Your task to perform on an android device: make emails show in primary in the gmail app Image 0: 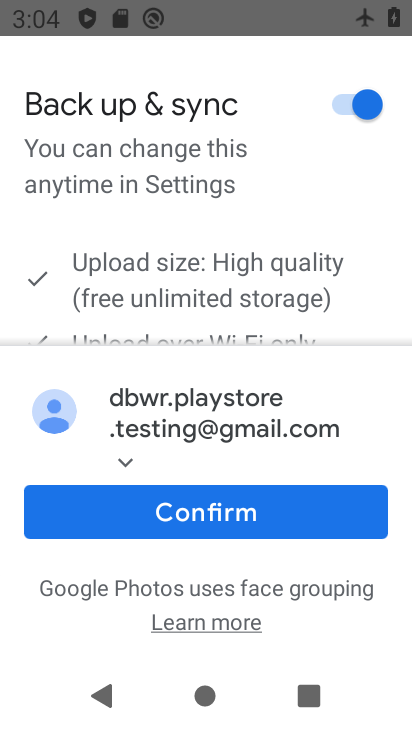
Step 0: press home button
Your task to perform on an android device: make emails show in primary in the gmail app Image 1: 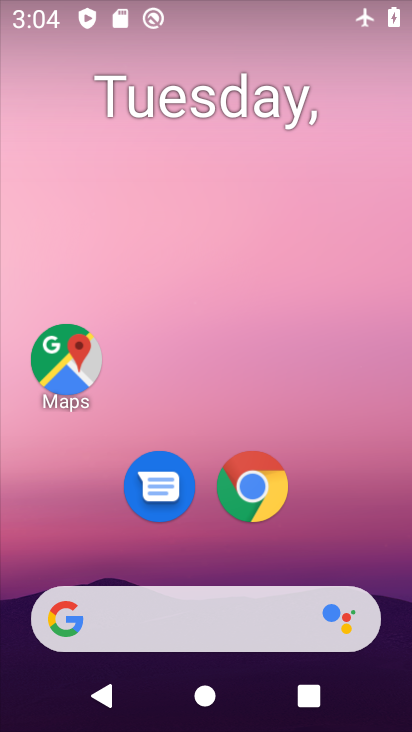
Step 1: drag from (217, 325) to (217, 123)
Your task to perform on an android device: make emails show in primary in the gmail app Image 2: 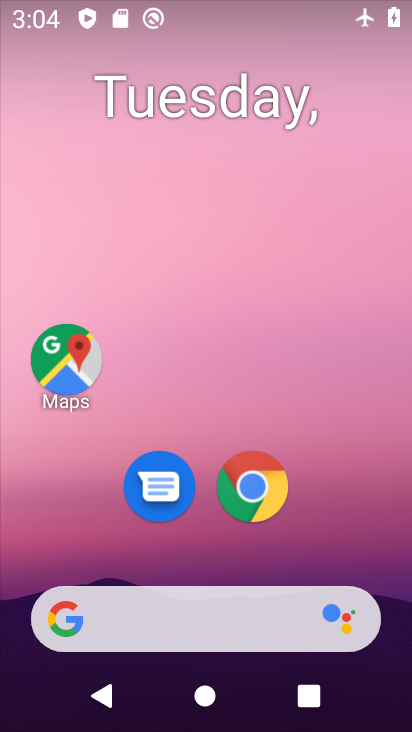
Step 2: drag from (229, 367) to (257, 48)
Your task to perform on an android device: make emails show in primary in the gmail app Image 3: 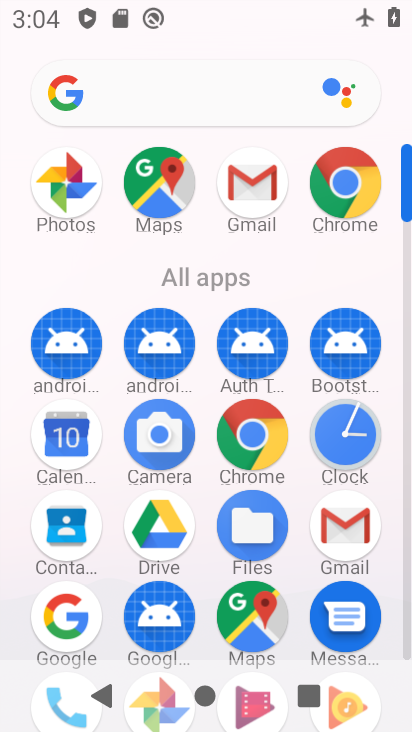
Step 3: click (244, 183)
Your task to perform on an android device: make emails show in primary in the gmail app Image 4: 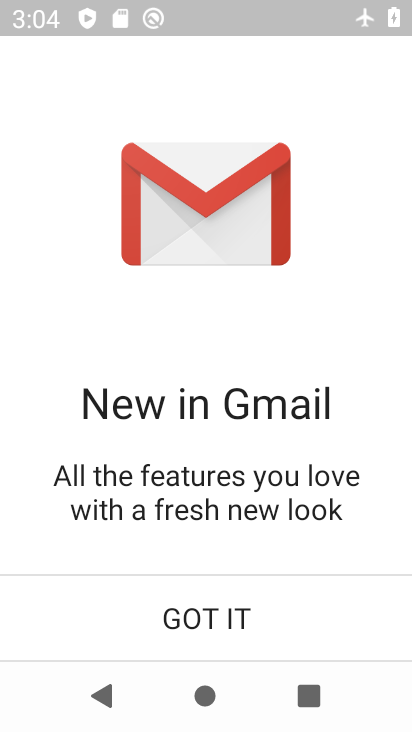
Step 4: click (214, 618)
Your task to perform on an android device: make emails show in primary in the gmail app Image 5: 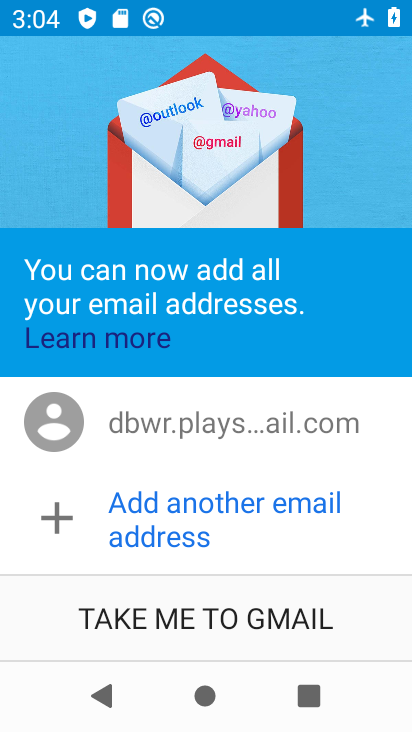
Step 5: click (217, 608)
Your task to perform on an android device: make emails show in primary in the gmail app Image 6: 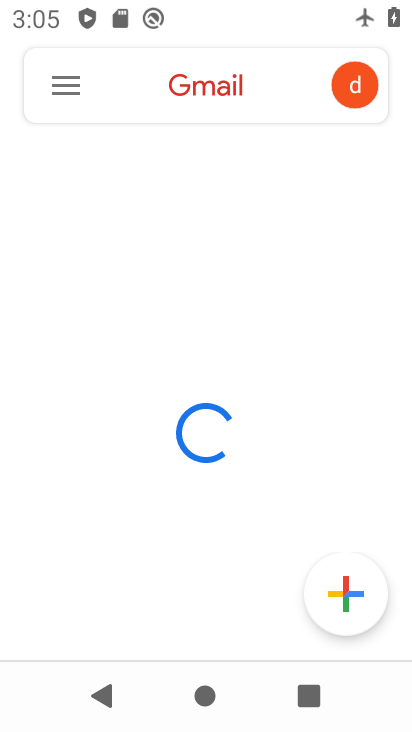
Step 6: click (56, 80)
Your task to perform on an android device: make emails show in primary in the gmail app Image 7: 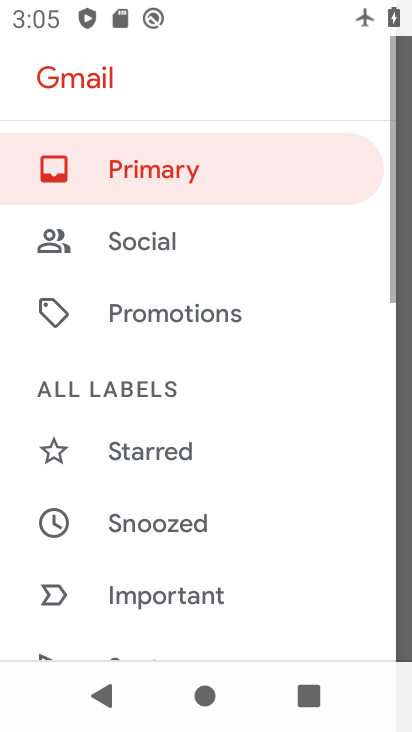
Step 7: click (112, 385)
Your task to perform on an android device: make emails show in primary in the gmail app Image 8: 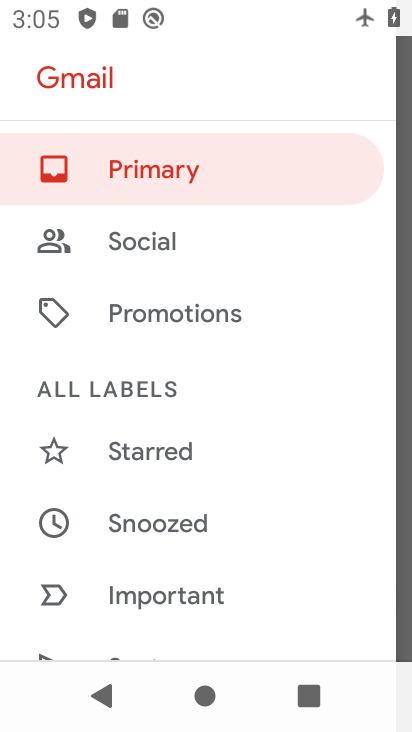
Step 8: drag from (82, 598) to (81, 57)
Your task to perform on an android device: make emails show in primary in the gmail app Image 9: 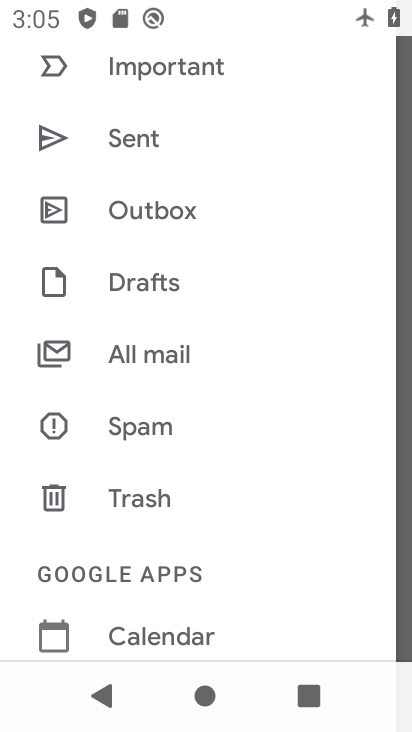
Step 9: drag from (111, 577) to (140, 75)
Your task to perform on an android device: make emails show in primary in the gmail app Image 10: 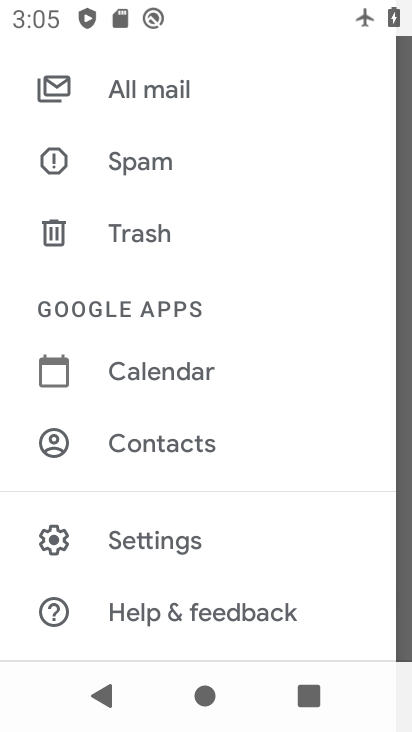
Step 10: click (176, 530)
Your task to perform on an android device: make emails show in primary in the gmail app Image 11: 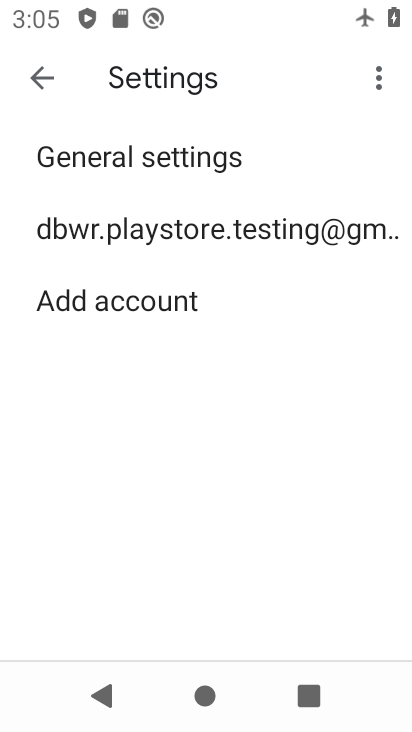
Step 11: click (117, 239)
Your task to perform on an android device: make emails show in primary in the gmail app Image 12: 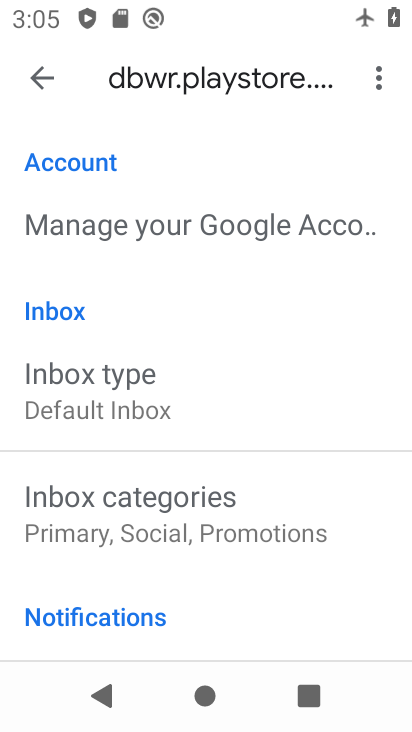
Step 12: click (154, 375)
Your task to perform on an android device: make emails show in primary in the gmail app Image 13: 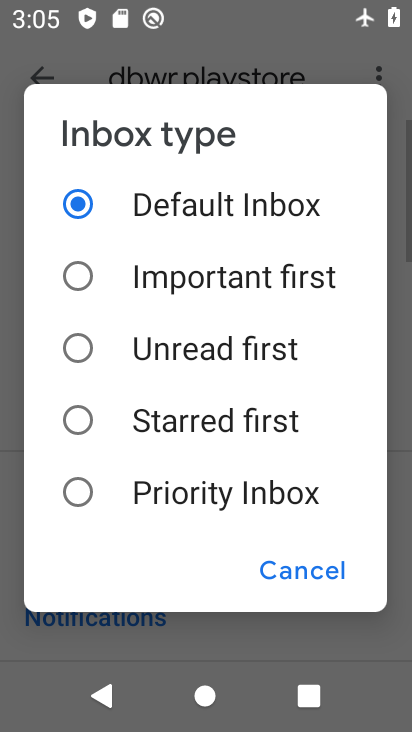
Step 13: click (88, 206)
Your task to perform on an android device: make emails show in primary in the gmail app Image 14: 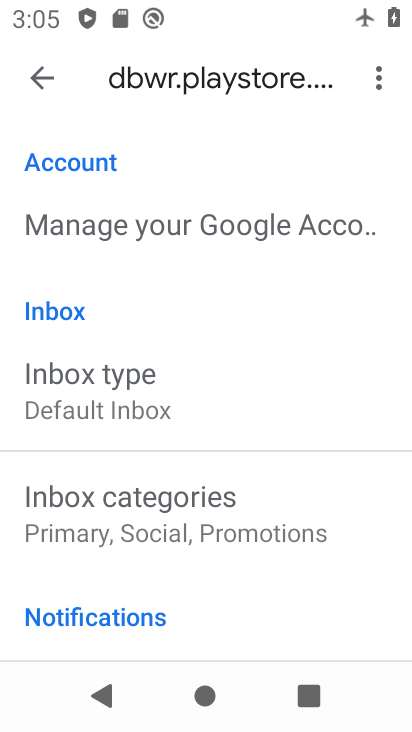
Step 14: task complete